Your task to perform on an android device: change the clock display to digital Image 0: 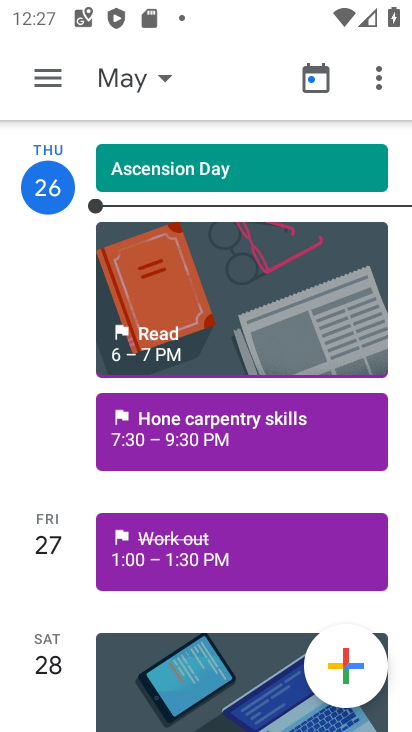
Step 0: press home button
Your task to perform on an android device: change the clock display to digital Image 1: 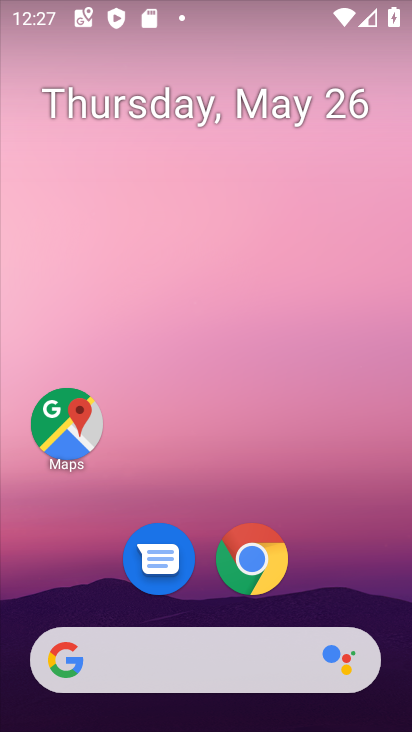
Step 1: drag from (335, 582) to (339, 133)
Your task to perform on an android device: change the clock display to digital Image 2: 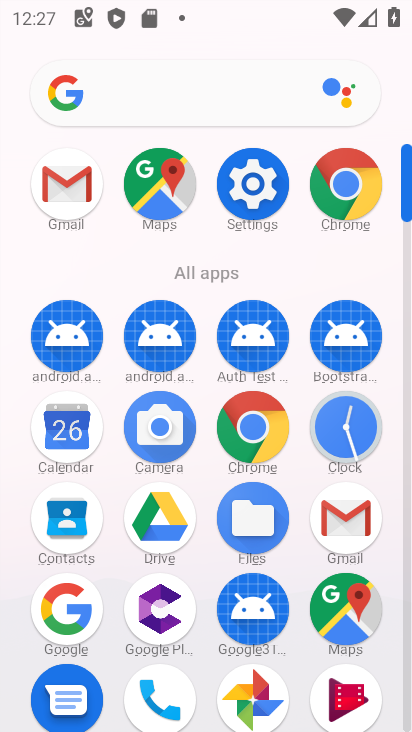
Step 2: drag from (249, 333) to (251, 220)
Your task to perform on an android device: change the clock display to digital Image 3: 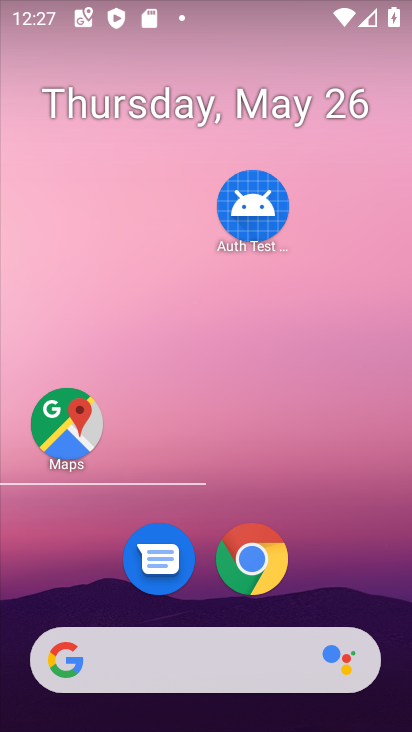
Step 3: drag from (306, 527) to (303, 170)
Your task to perform on an android device: change the clock display to digital Image 4: 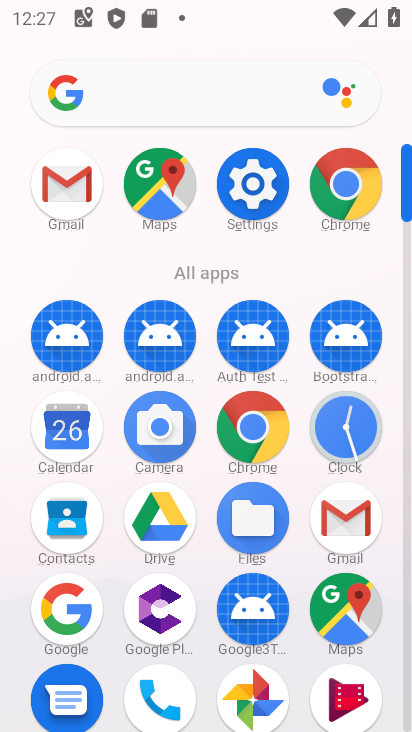
Step 4: click (336, 417)
Your task to perform on an android device: change the clock display to digital Image 5: 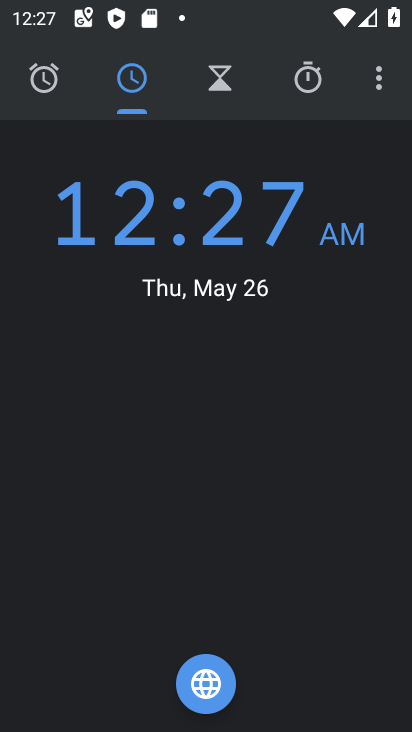
Step 5: click (376, 88)
Your task to perform on an android device: change the clock display to digital Image 6: 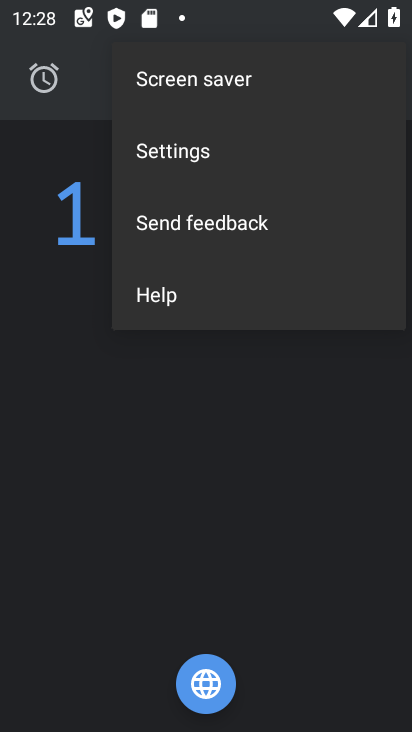
Step 6: click (243, 169)
Your task to perform on an android device: change the clock display to digital Image 7: 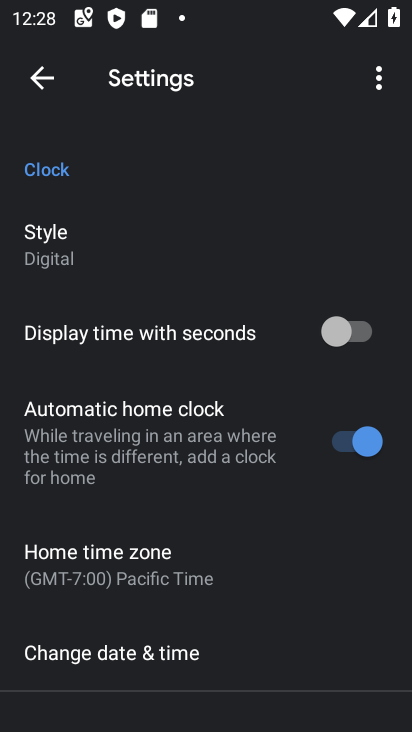
Step 7: click (162, 247)
Your task to perform on an android device: change the clock display to digital Image 8: 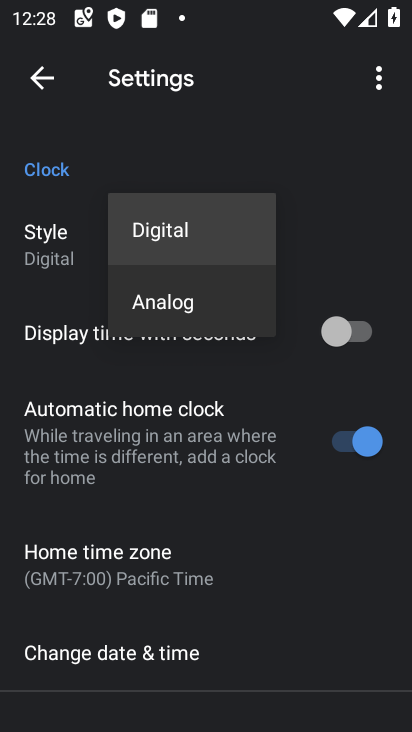
Step 8: task complete